Your task to perform on an android device: Go to notification settings Image 0: 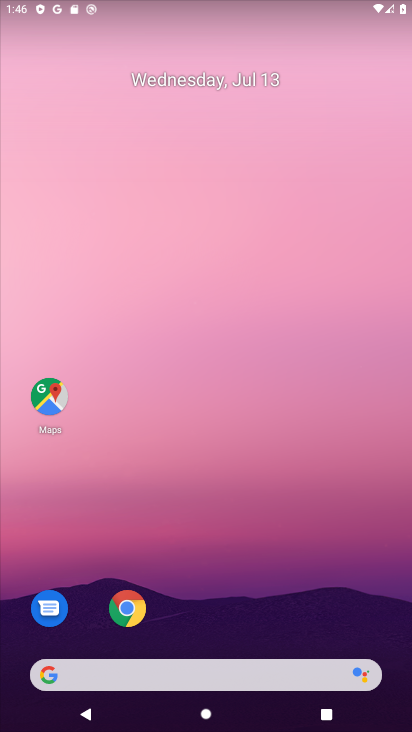
Step 0: drag from (188, 608) to (264, 13)
Your task to perform on an android device: Go to notification settings Image 1: 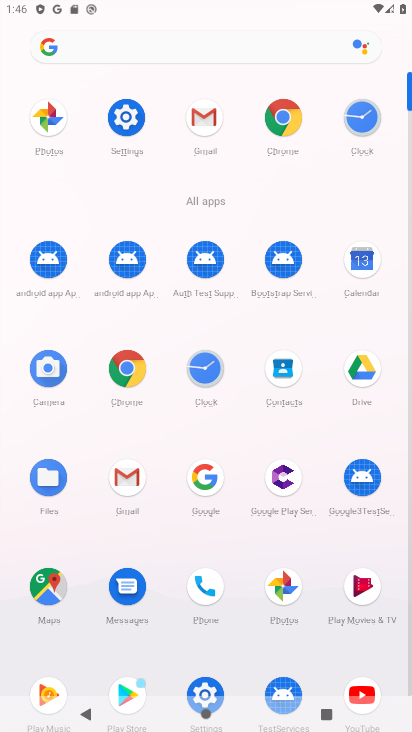
Step 1: click (131, 168)
Your task to perform on an android device: Go to notification settings Image 2: 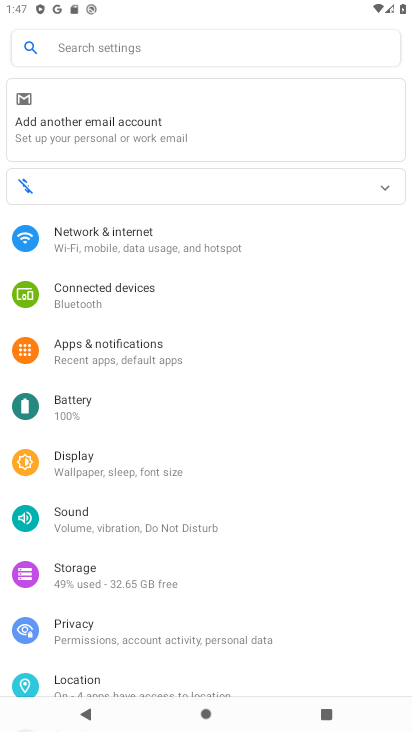
Step 2: click (236, 337)
Your task to perform on an android device: Go to notification settings Image 3: 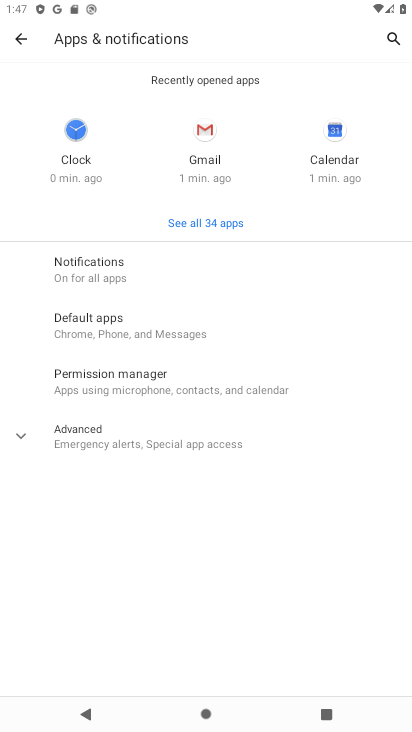
Step 3: task complete